Your task to perform on an android device: toggle notification dots Image 0: 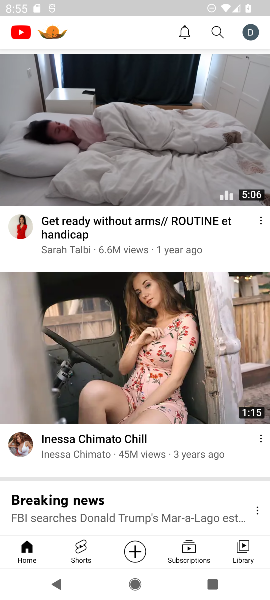
Step 0: press home button
Your task to perform on an android device: toggle notification dots Image 1: 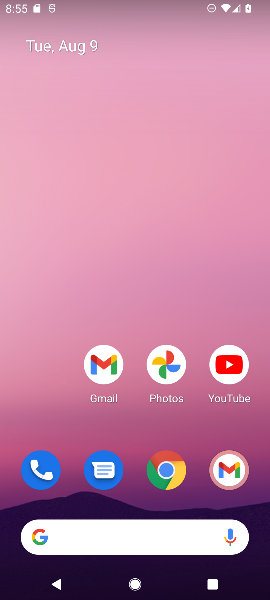
Step 1: drag from (114, 540) to (116, 237)
Your task to perform on an android device: toggle notification dots Image 2: 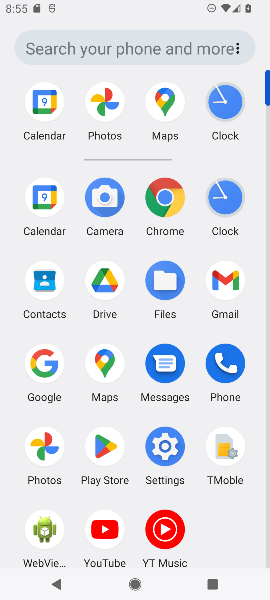
Step 2: click (165, 446)
Your task to perform on an android device: toggle notification dots Image 3: 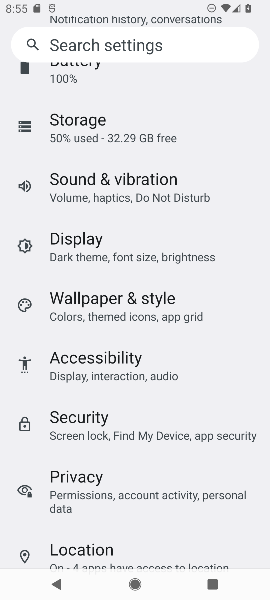
Step 3: drag from (145, 160) to (167, 333)
Your task to perform on an android device: toggle notification dots Image 4: 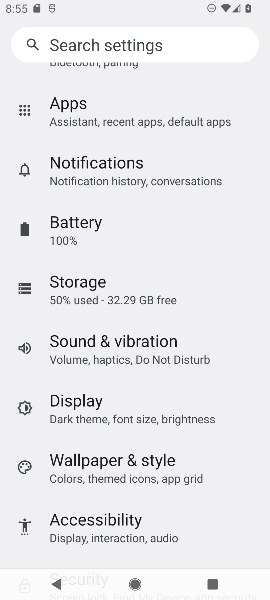
Step 4: click (116, 180)
Your task to perform on an android device: toggle notification dots Image 5: 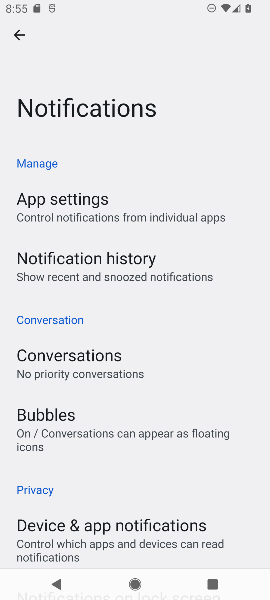
Step 5: drag from (95, 456) to (146, 371)
Your task to perform on an android device: toggle notification dots Image 6: 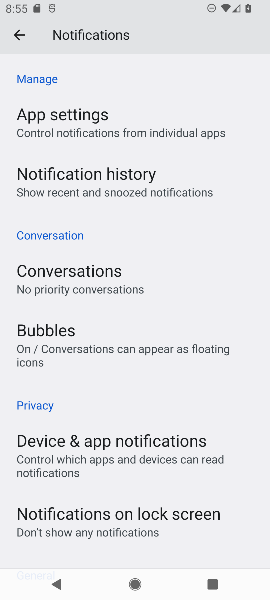
Step 6: drag from (88, 478) to (155, 363)
Your task to perform on an android device: toggle notification dots Image 7: 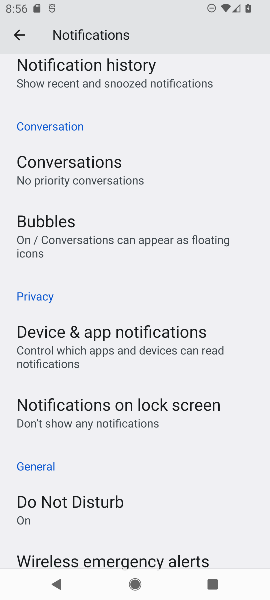
Step 7: drag from (77, 532) to (211, 308)
Your task to perform on an android device: toggle notification dots Image 8: 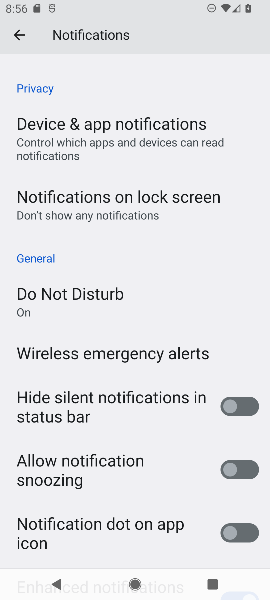
Step 8: click (225, 527)
Your task to perform on an android device: toggle notification dots Image 9: 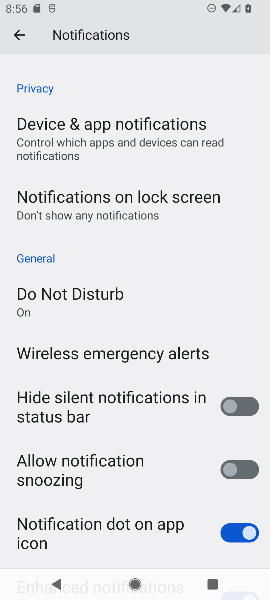
Step 9: task complete